Your task to perform on an android device: all mails in gmail Image 0: 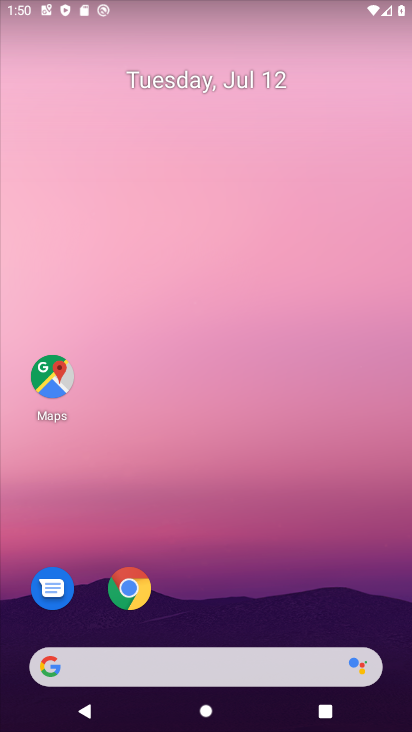
Step 0: drag from (229, 663) to (216, 46)
Your task to perform on an android device: all mails in gmail Image 1: 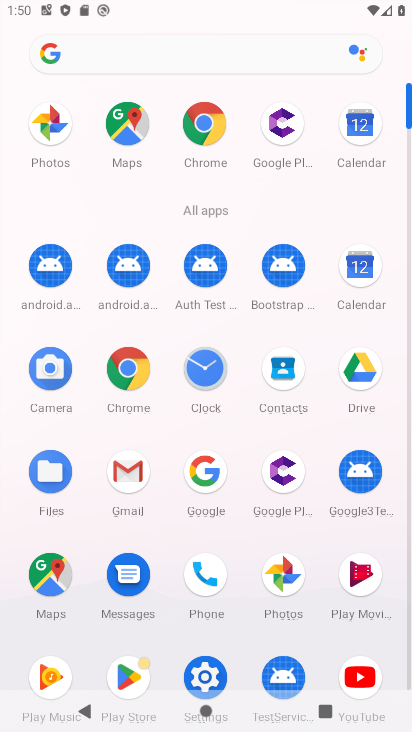
Step 1: click (135, 462)
Your task to perform on an android device: all mails in gmail Image 2: 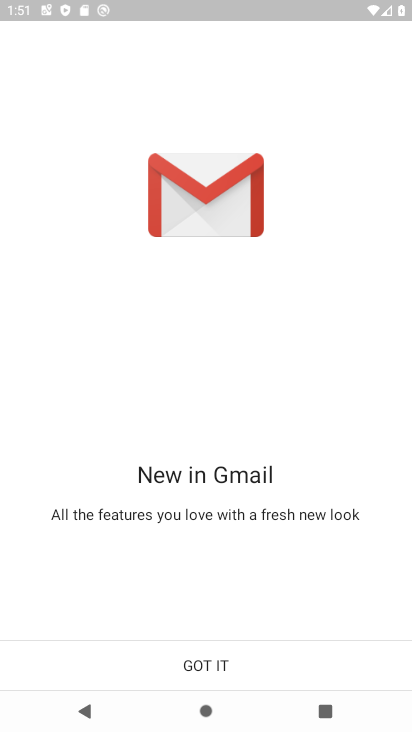
Step 2: click (202, 664)
Your task to perform on an android device: all mails in gmail Image 3: 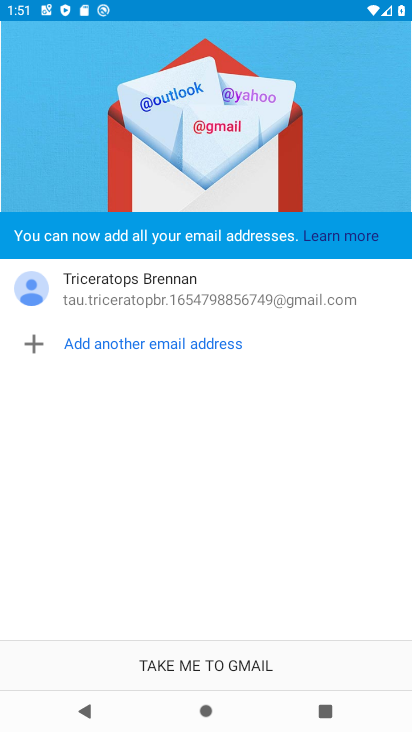
Step 3: click (202, 664)
Your task to perform on an android device: all mails in gmail Image 4: 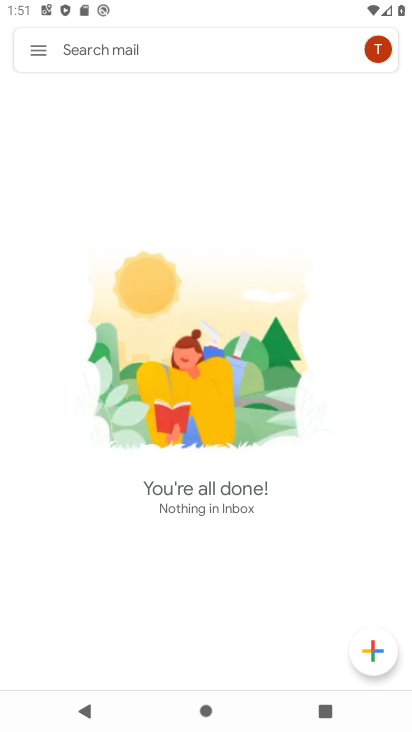
Step 4: click (36, 38)
Your task to perform on an android device: all mails in gmail Image 5: 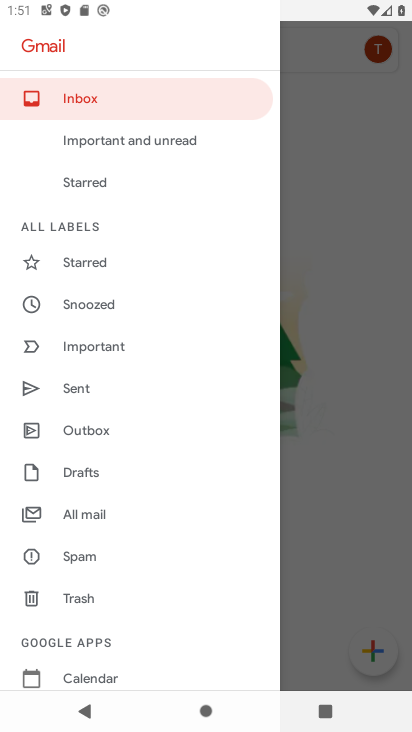
Step 5: click (111, 507)
Your task to perform on an android device: all mails in gmail Image 6: 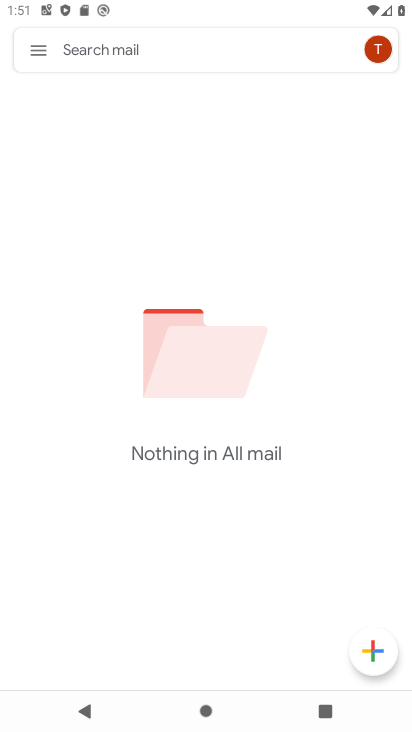
Step 6: task complete